Your task to perform on an android device: clear history in the chrome app Image 0: 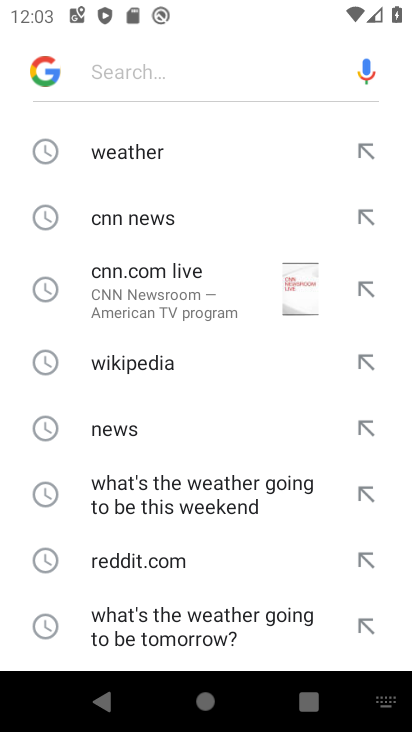
Step 0: press home button
Your task to perform on an android device: clear history in the chrome app Image 1: 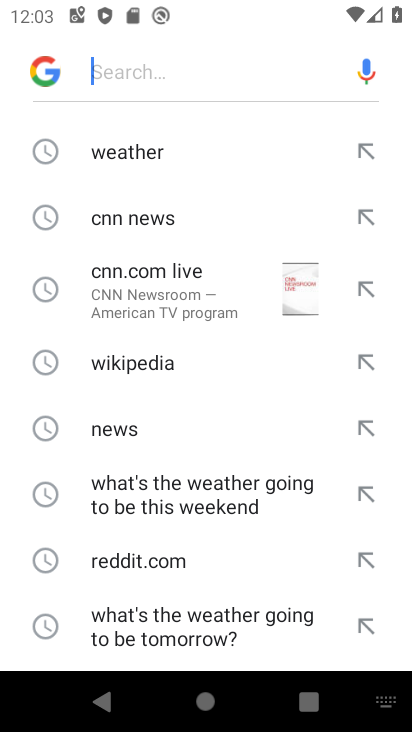
Step 1: press home button
Your task to perform on an android device: clear history in the chrome app Image 2: 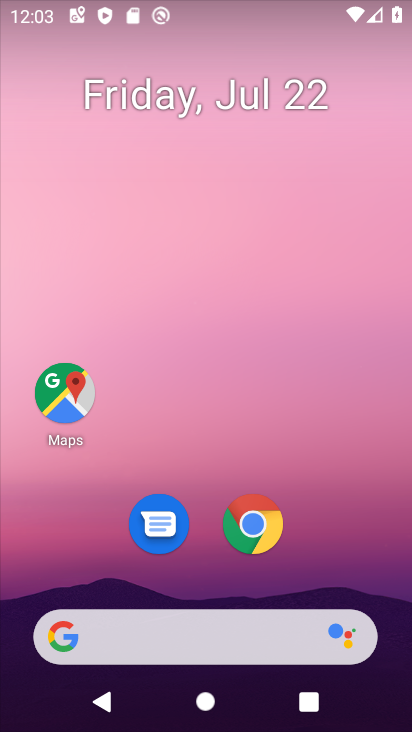
Step 2: click (248, 519)
Your task to perform on an android device: clear history in the chrome app Image 3: 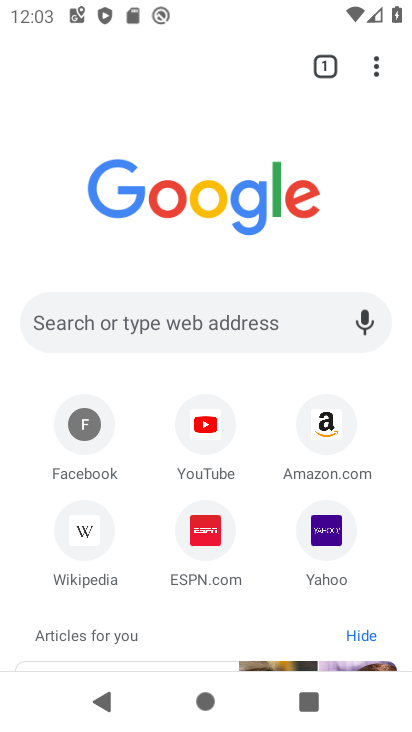
Step 3: click (378, 74)
Your task to perform on an android device: clear history in the chrome app Image 4: 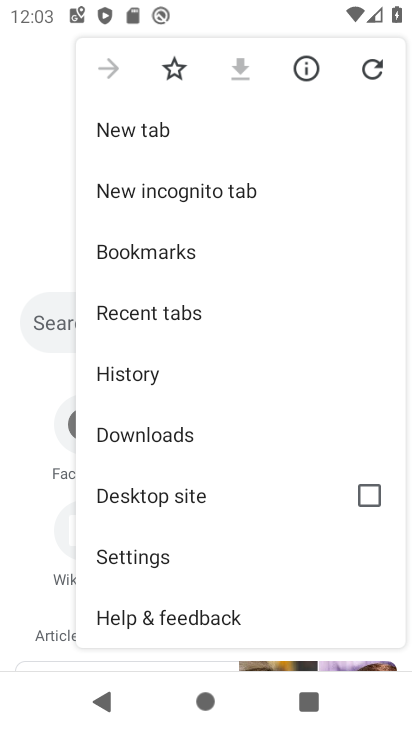
Step 4: click (129, 366)
Your task to perform on an android device: clear history in the chrome app Image 5: 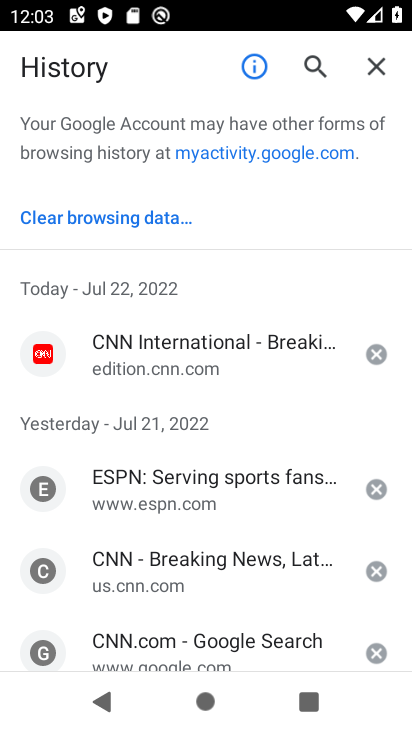
Step 5: click (132, 218)
Your task to perform on an android device: clear history in the chrome app Image 6: 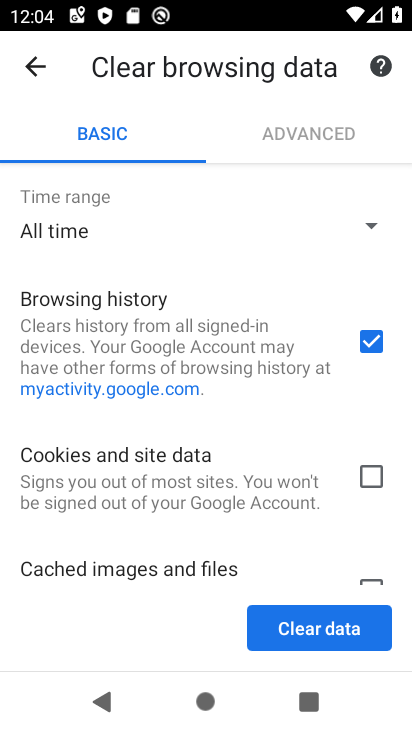
Step 6: drag from (315, 529) to (315, 411)
Your task to perform on an android device: clear history in the chrome app Image 7: 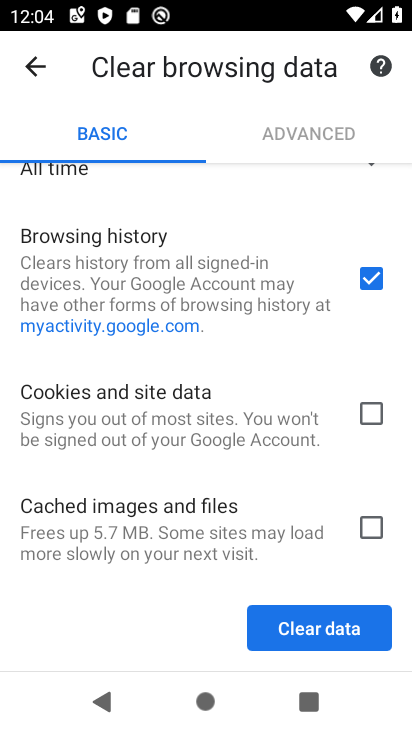
Step 7: click (331, 627)
Your task to perform on an android device: clear history in the chrome app Image 8: 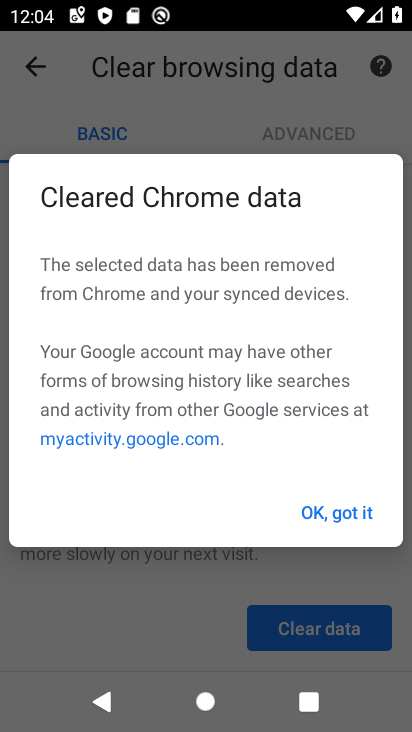
Step 8: click (355, 516)
Your task to perform on an android device: clear history in the chrome app Image 9: 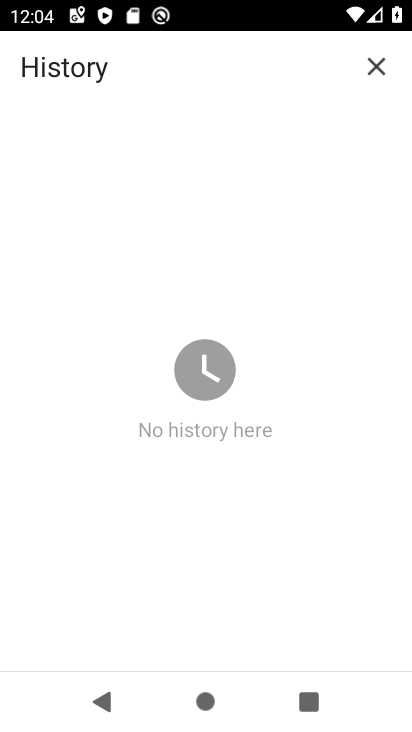
Step 9: task complete